Your task to perform on an android device: turn off notifications settings in the gmail app Image 0: 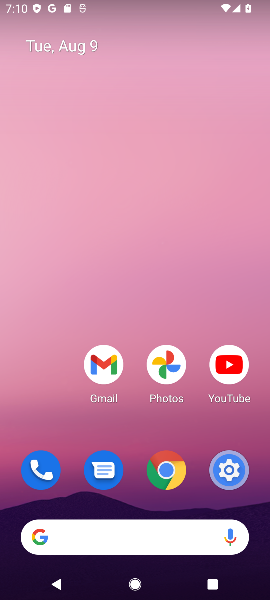
Step 0: click (98, 358)
Your task to perform on an android device: turn off notifications settings in the gmail app Image 1: 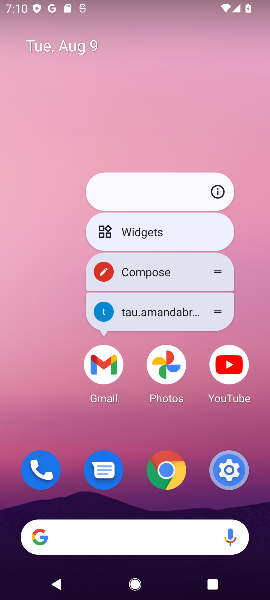
Step 1: click (209, 189)
Your task to perform on an android device: turn off notifications settings in the gmail app Image 2: 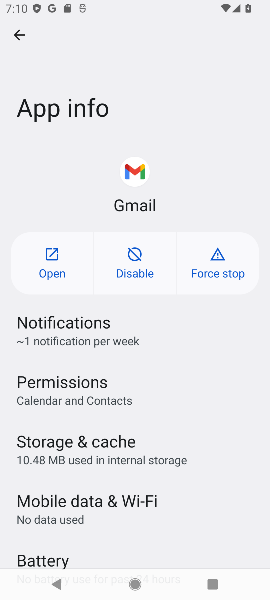
Step 2: click (127, 335)
Your task to perform on an android device: turn off notifications settings in the gmail app Image 3: 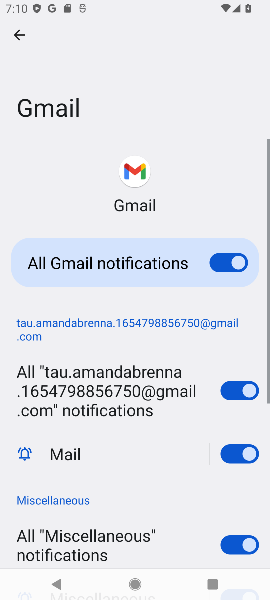
Step 3: click (245, 250)
Your task to perform on an android device: turn off notifications settings in the gmail app Image 4: 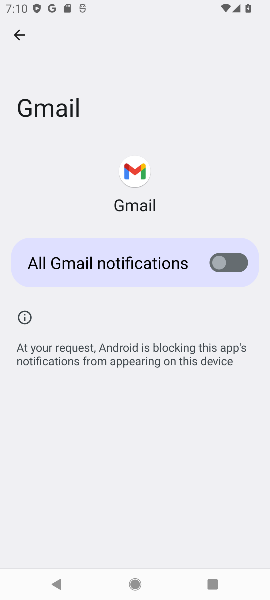
Step 4: task complete